Your task to perform on an android device: Go to Wikipedia Image 0: 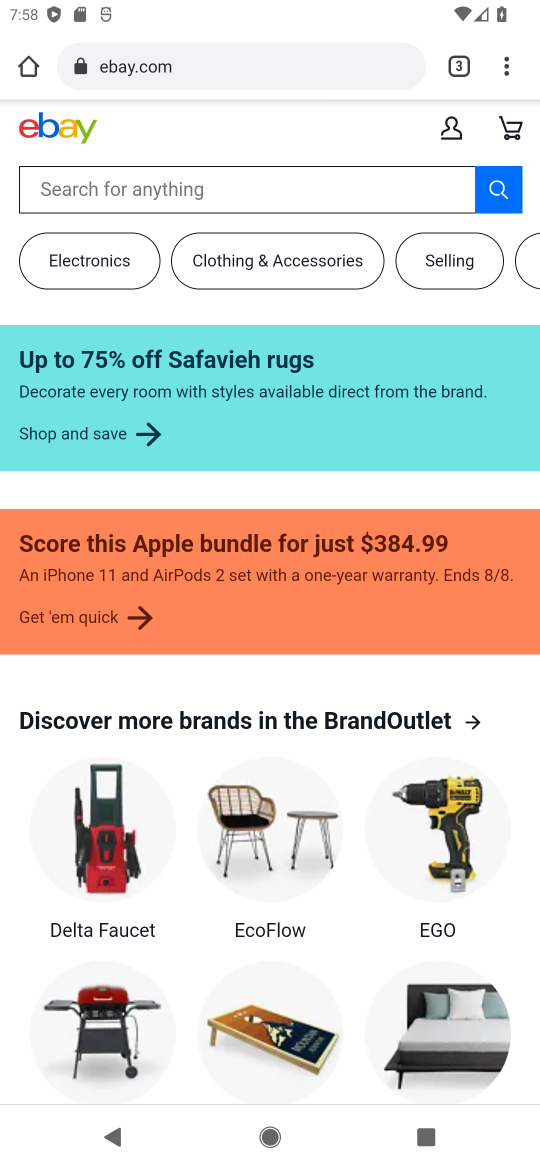
Step 0: drag from (511, 62) to (345, 204)
Your task to perform on an android device: Go to Wikipedia Image 1: 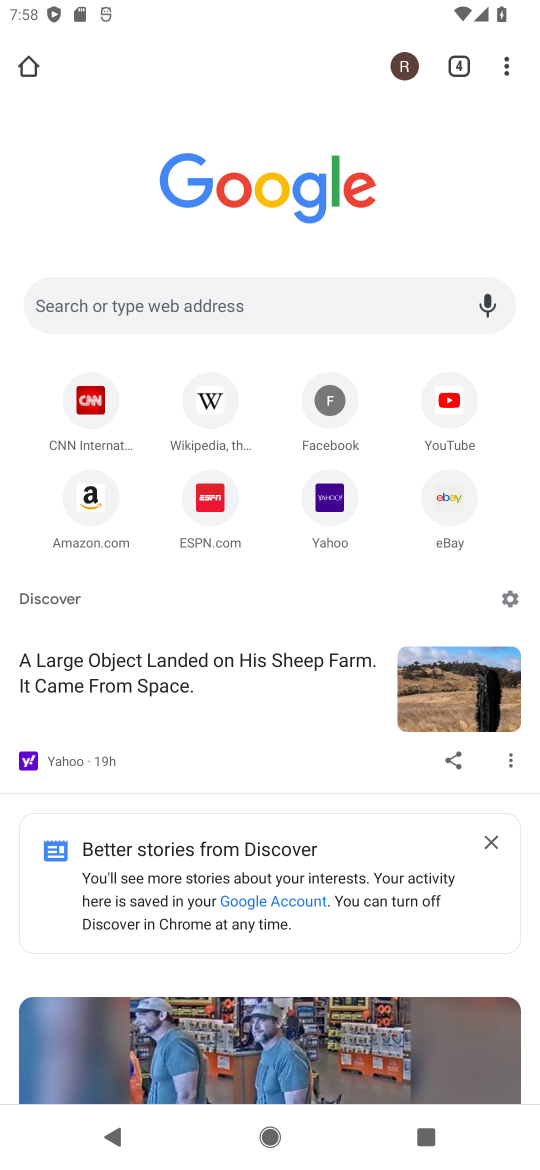
Step 1: click (205, 396)
Your task to perform on an android device: Go to Wikipedia Image 2: 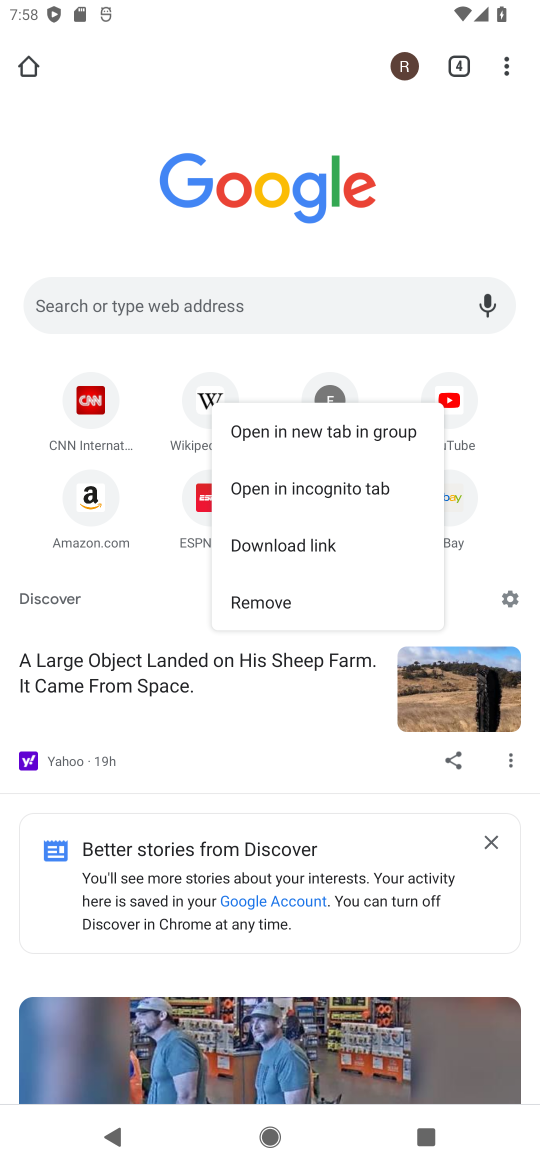
Step 2: click (211, 382)
Your task to perform on an android device: Go to Wikipedia Image 3: 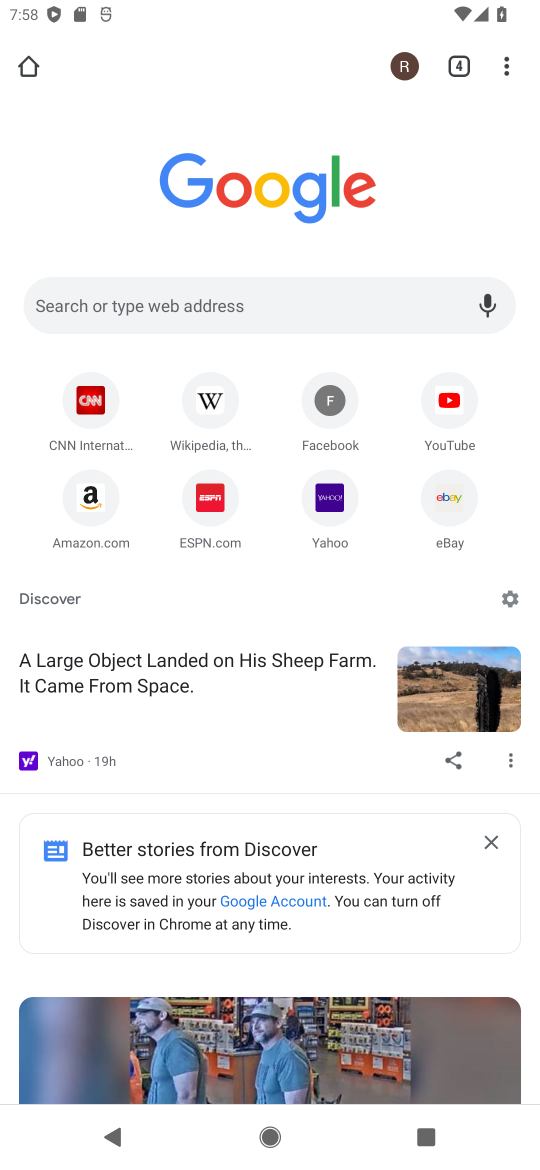
Step 3: click (219, 398)
Your task to perform on an android device: Go to Wikipedia Image 4: 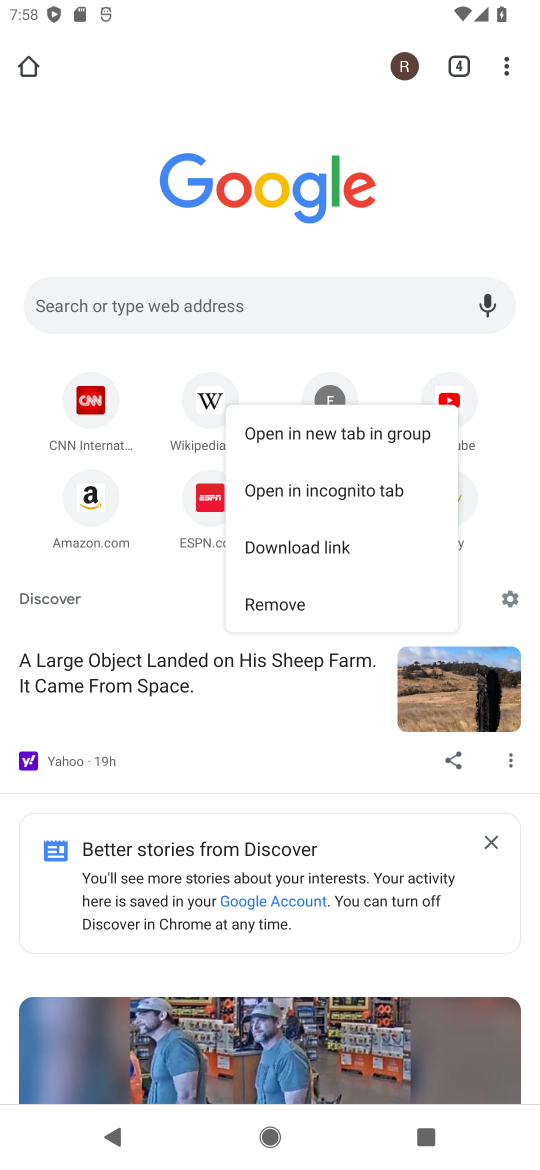
Step 4: click (214, 404)
Your task to perform on an android device: Go to Wikipedia Image 5: 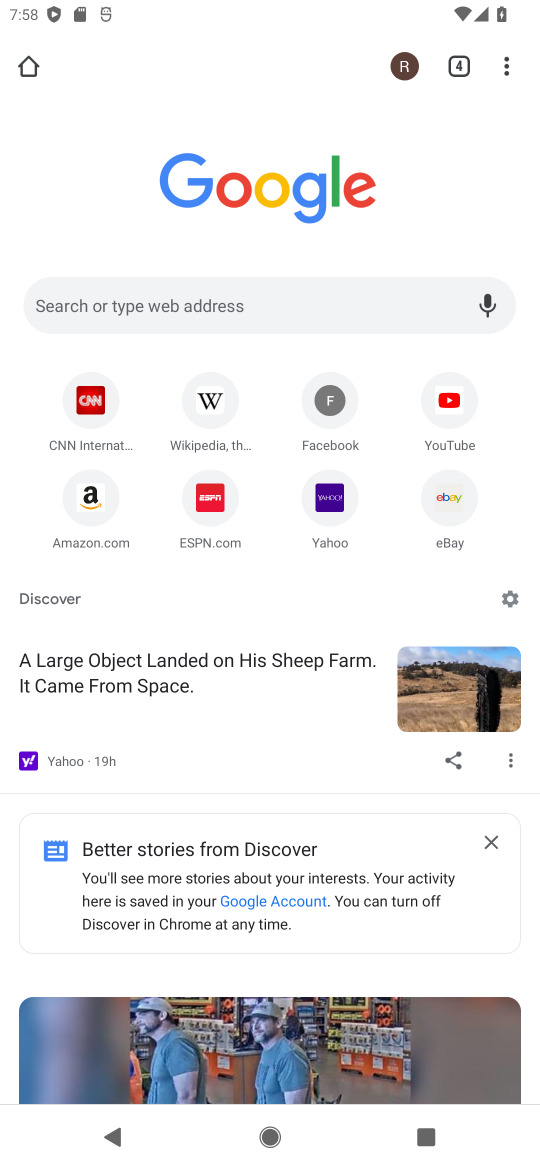
Step 5: click (211, 389)
Your task to perform on an android device: Go to Wikipedia Image 6: 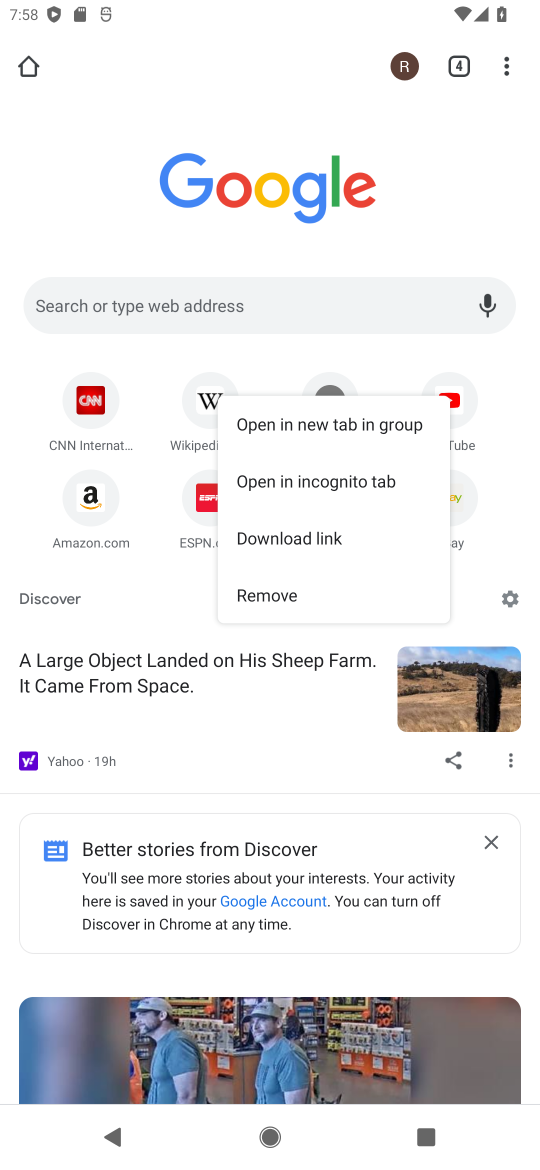
Step 6: click (211, 398)
Your task to perform on an android device: Go to Wikipedia Image 7: 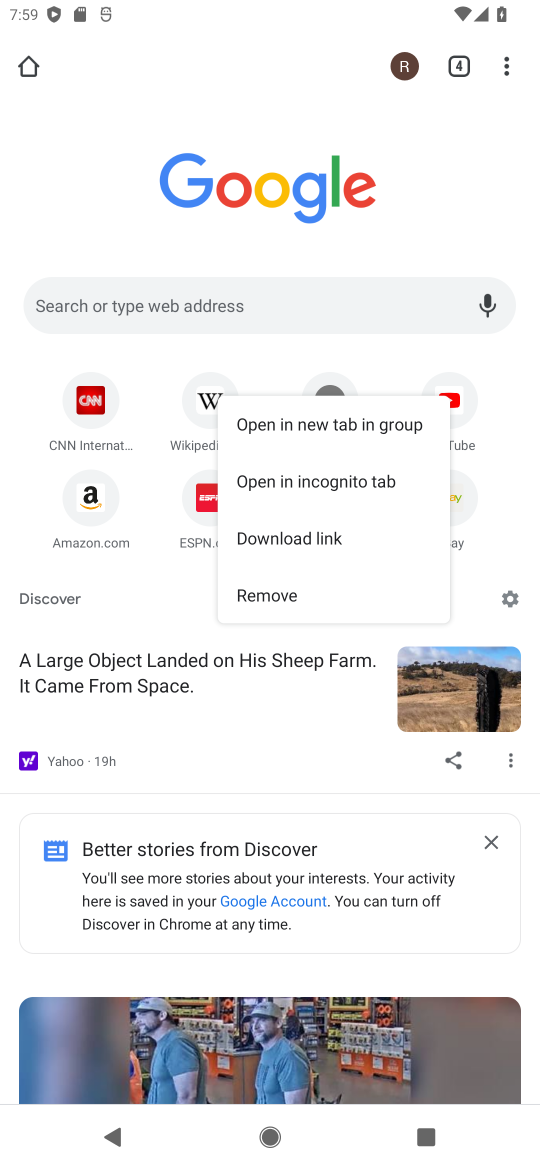
Step 7: click (202, 402)
Your task to perform on an android device: Go to Wikipedia Image 8: 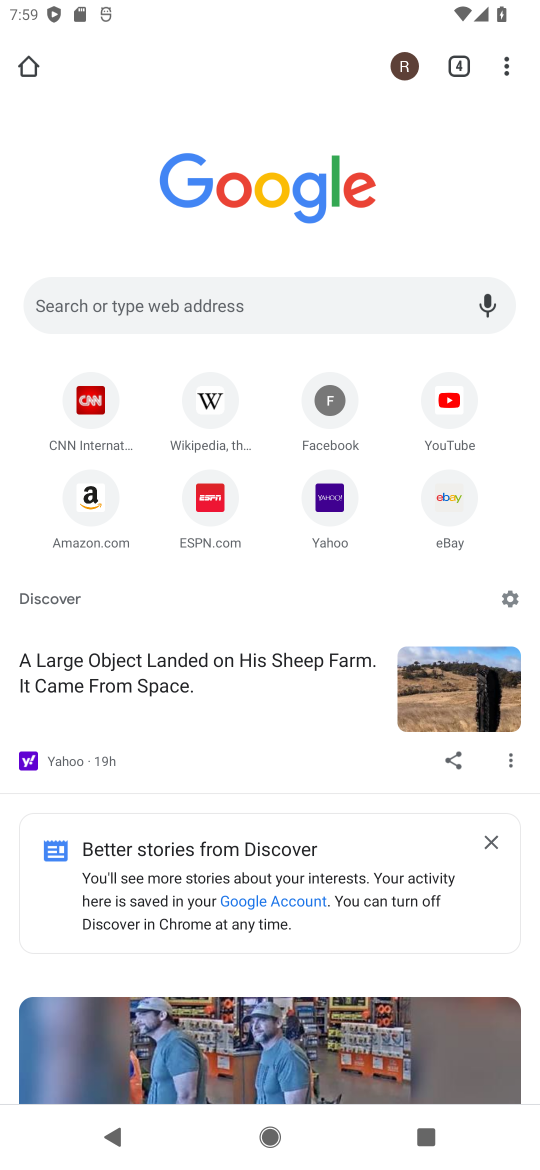
Step 8: click (213, 396)
Your task to perform on an android device: Go to Wikipedia Image 9: 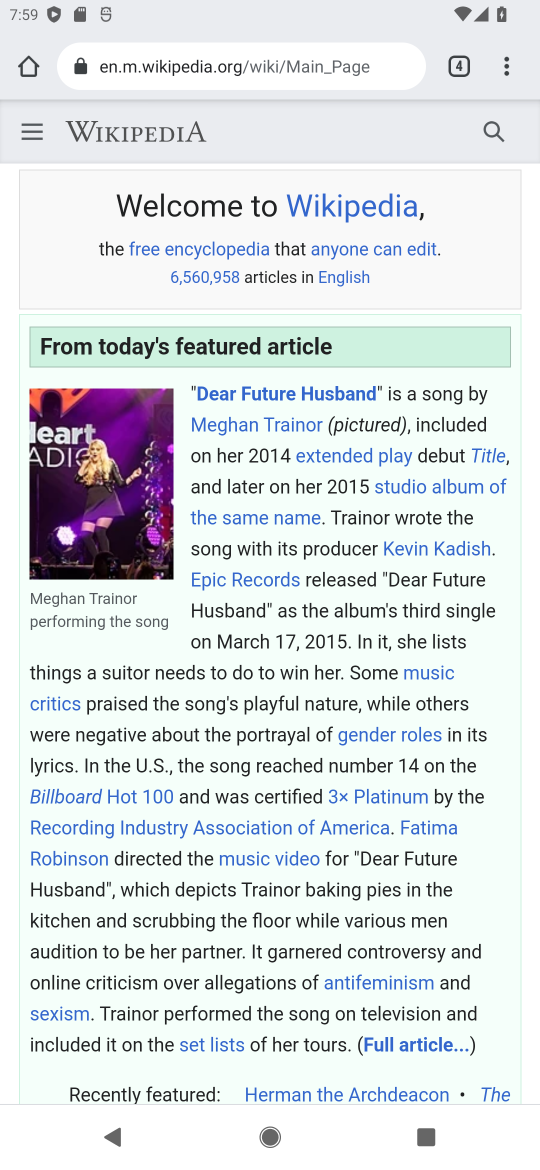
Step 9: task complete